Your task to perform on an android device: Is it going to rain today? Image 0: 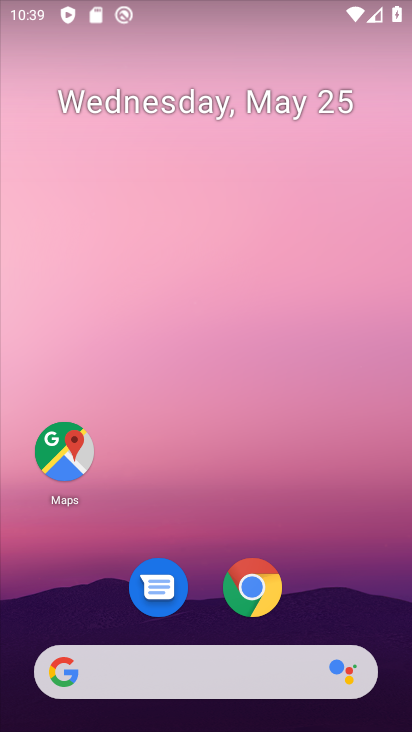
Step 0: drag from (316, 522) to (277, 17)
Your task to perform on an android device: Is it going to rain today? Image 1: 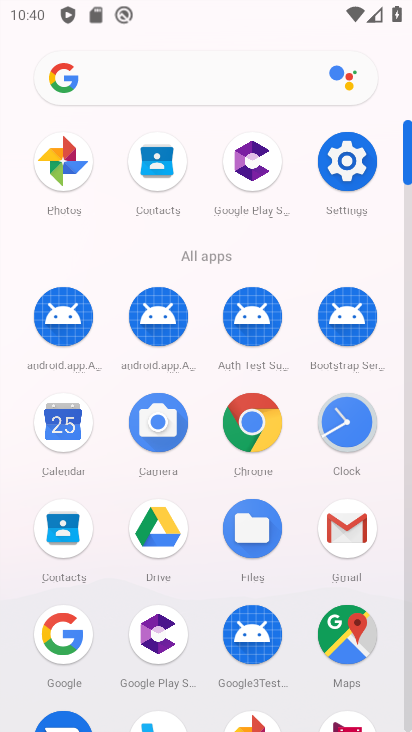
Step 1: click (248, 418)
Your task to perform on an android device: Is it going to rain today? Image 2: 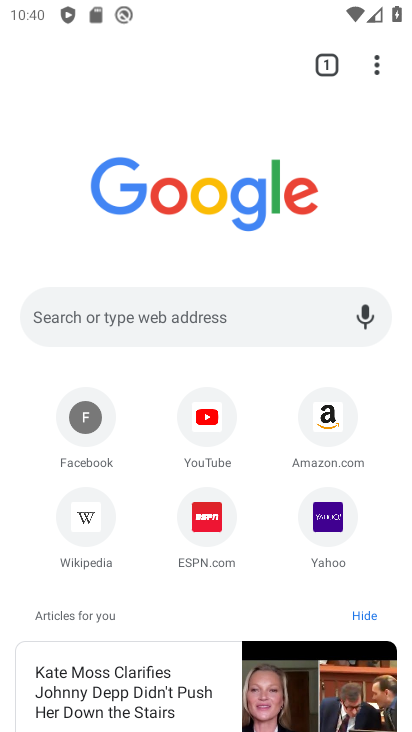
Step 2: click (183, 303)
Your task to perform on an android device: Is it going to rain today? Image 3: 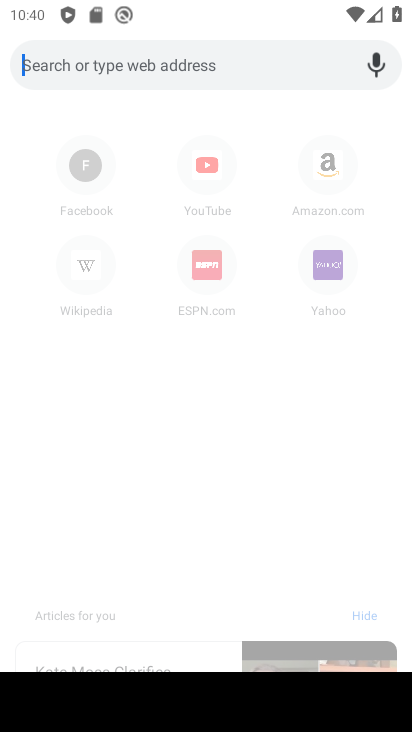
Step 3: type "Is it going to rain today?"
Your task to perform on an android device: Is it going to rain today? Image 4: 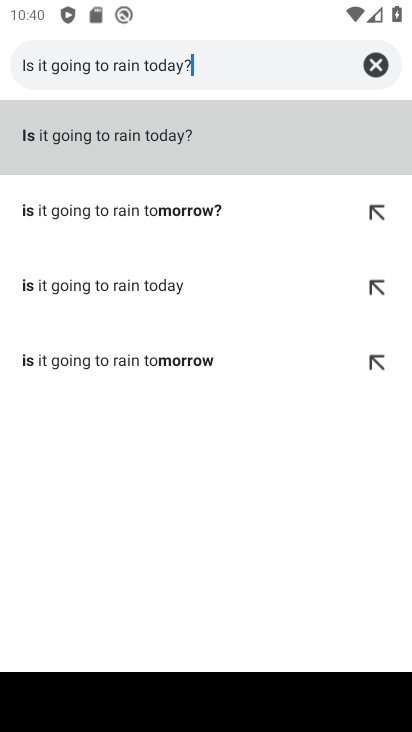
Step 4: type ""
Your task to perform on an android device: Is it going to rain today? Image 5: 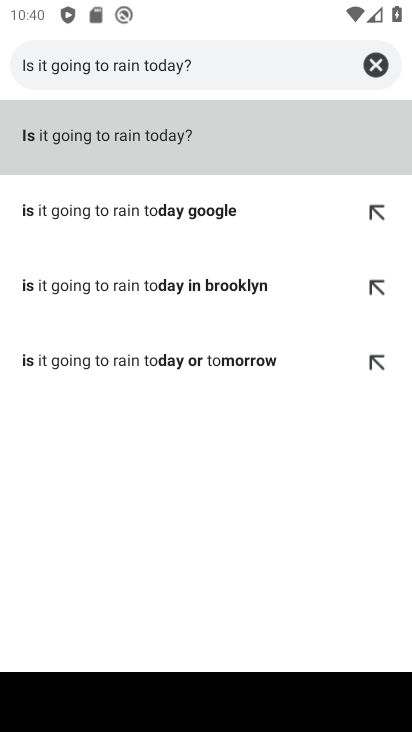
Step 5: click (136, 150)
Your task to perform on an android device: Is it going to rain today? Image 6: 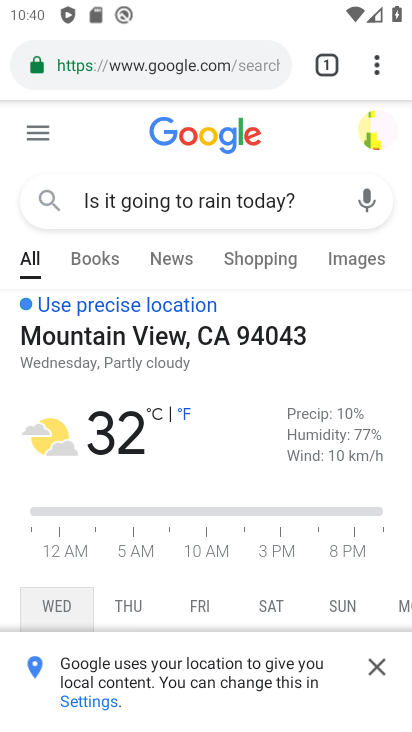
Step 6: task complete